Your task to perform on an android device: open app "Walmart Shopping & Grocery" (install if not already installed) Image 0: 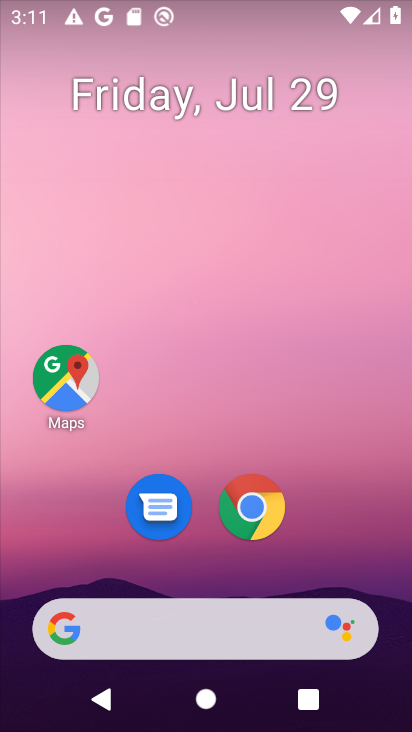
Step 0: click (222, 623)
Your task to perform on an android device: open app "Walmart Shopping & Grocery" (install if not already installed) Image 1: 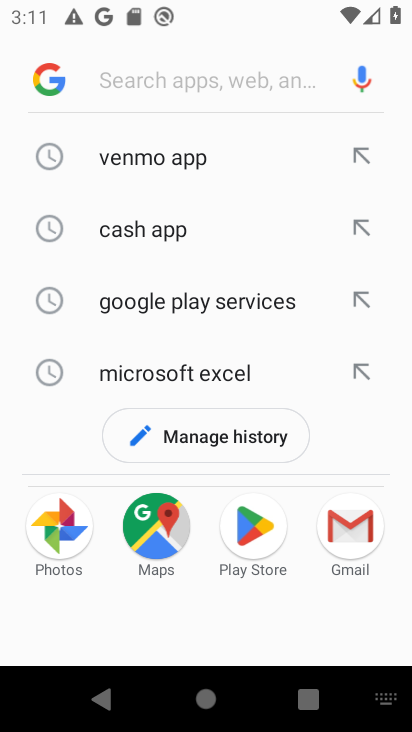
Step 1: type "walmart"
Your task to perform on an android device: open app "Walmart Shopping & Grocery" (install if not already installed) Image 2: 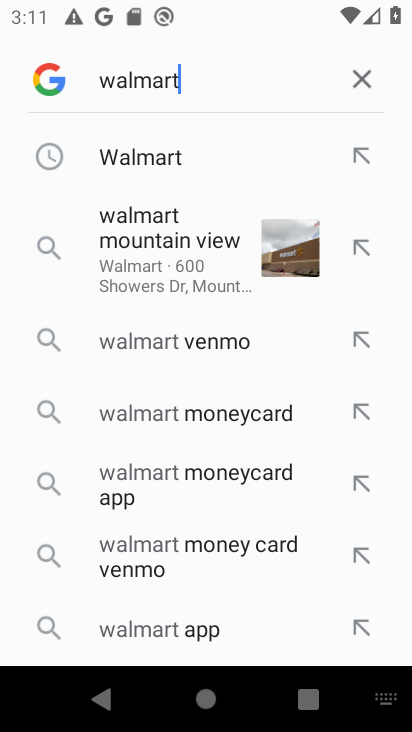
Step 2: click (352, 331)
Your task to perform on an android device: open app "Walmart Shopping & Grocery" (install if not already installed) Image 3: 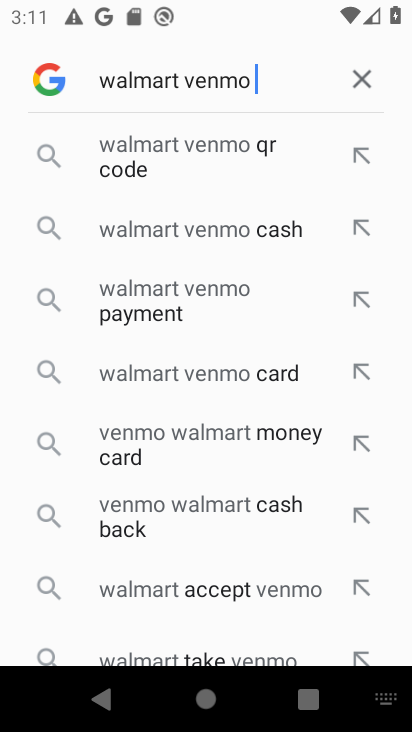
Step 3: click (208, 150)
Your task to perform on an android device: open app "Walmart Shopping & Grocery" (install if not already installed) Image 4: 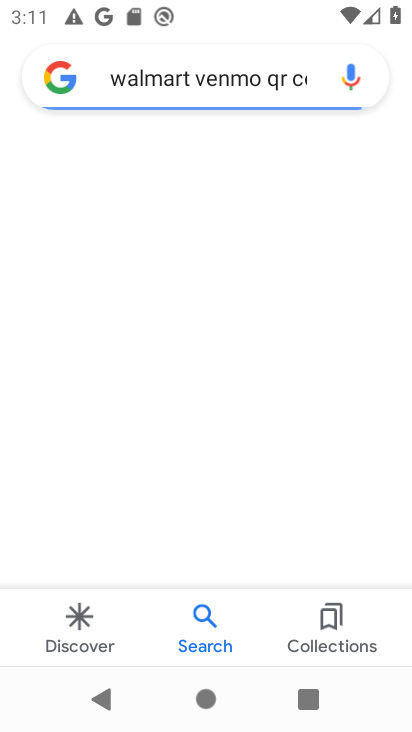
Step 4: task complete